Your task to perform on an android device: Open calendar and show me the second week of next month Image 0: 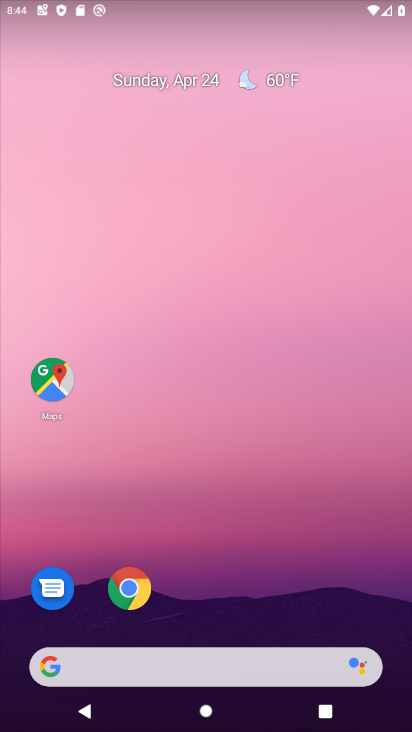
Step 0: drag from (279, 586) to (234, 44)
Your task to perform on an android device: Open calendar and show me the second week of next month Image 1: 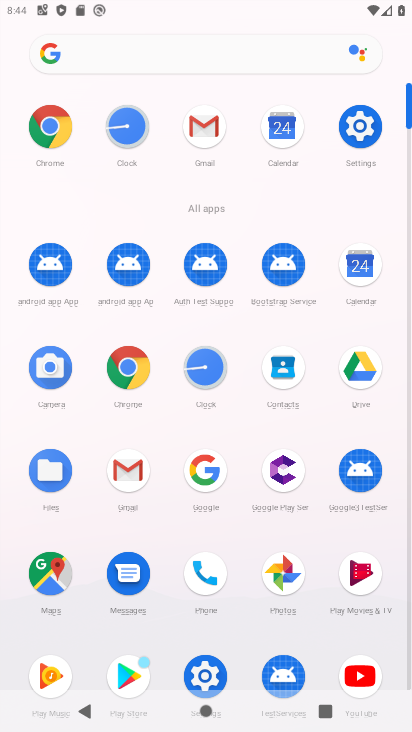
Step 1: click (282, 126)
Your task to perform on an android device: Open calendar and show me the second week of next month Image 2: 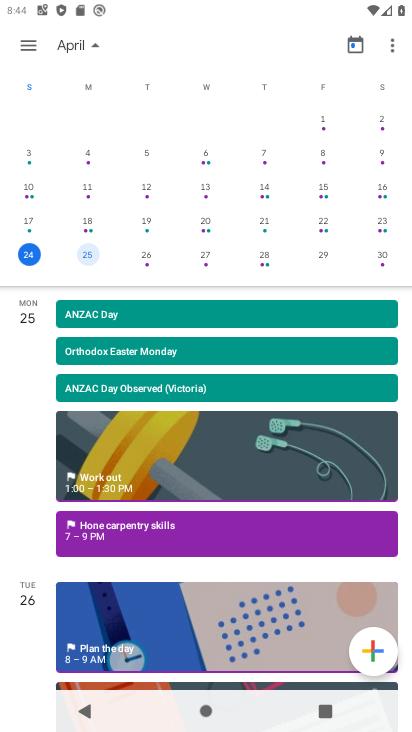
Step 2: click (358, 45)
Your task to perform on an android device: Open calendar and show me the second week of next month Image 3: 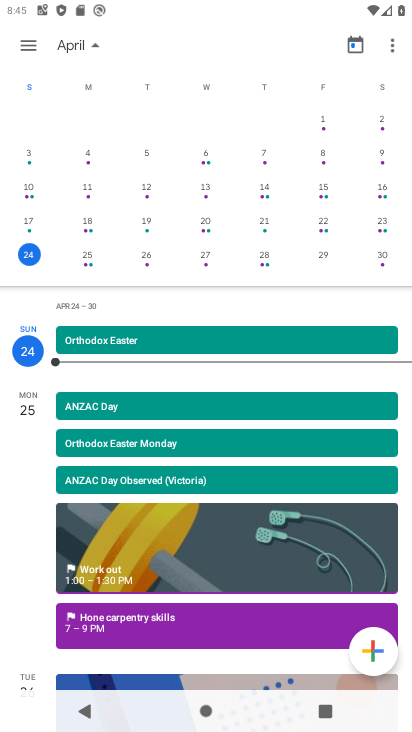
Step 3: drag from (347, 200) to (56, 246)
Your task to perform on an android device: Open calendar and show me the second week of next month Image 4: 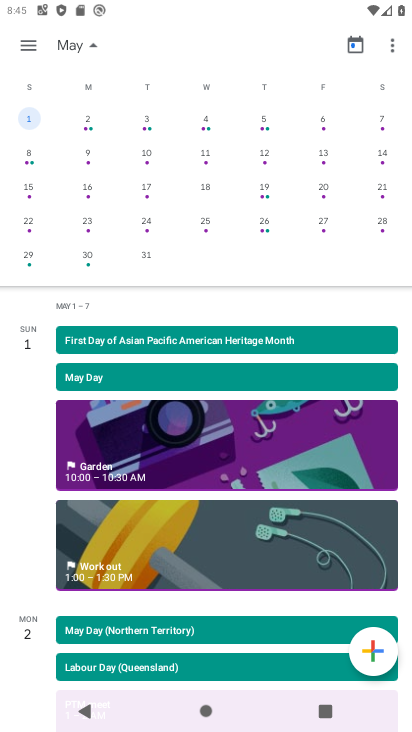
Step 4: click (86, 157)
Your task to perform on an android device: Open calendar and show me the second week of next month Image 5: 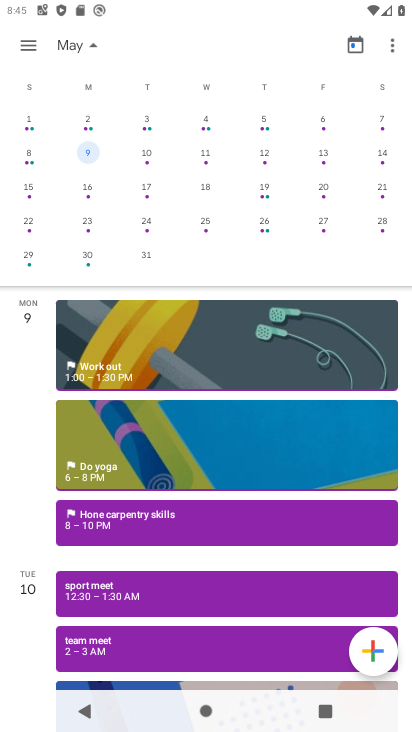
Step 5: click (36, 45)
Your task to perform on an android device: Open calendar and show me the second week of next month Image 6: 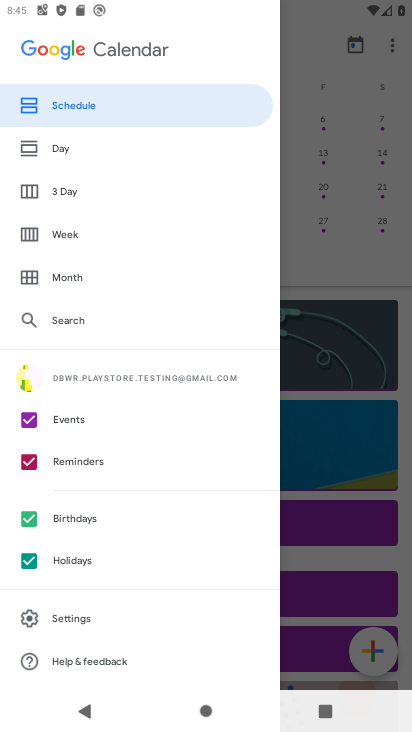
Step 6: click (57, 236)
Your task to perform on an android device: Open calendar and show me the second week of next month Image 7: 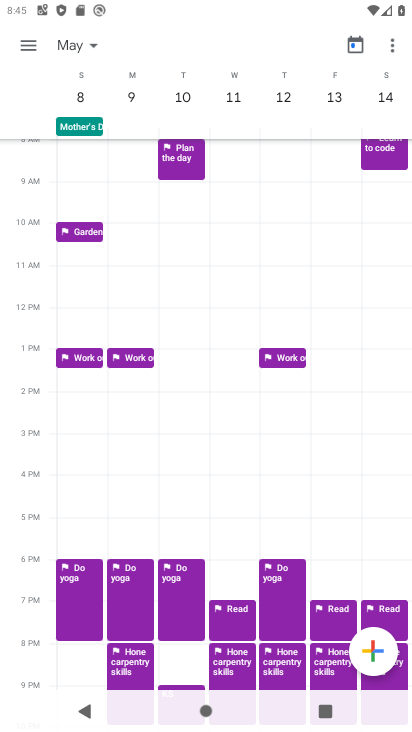
Step 7: task complete